Your task to perform on an android device: delete a single message in the gmail app Image 0: 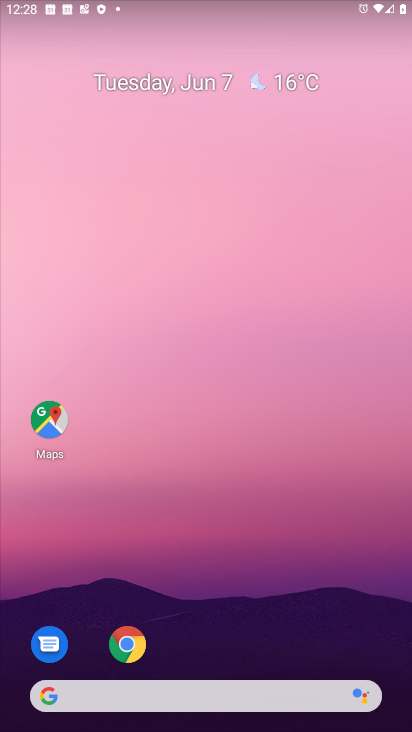
Step 0: drag from (33, 562) to (272, 86)
Your task to perform on an android device: delete a single message in the gmail app Image 1: 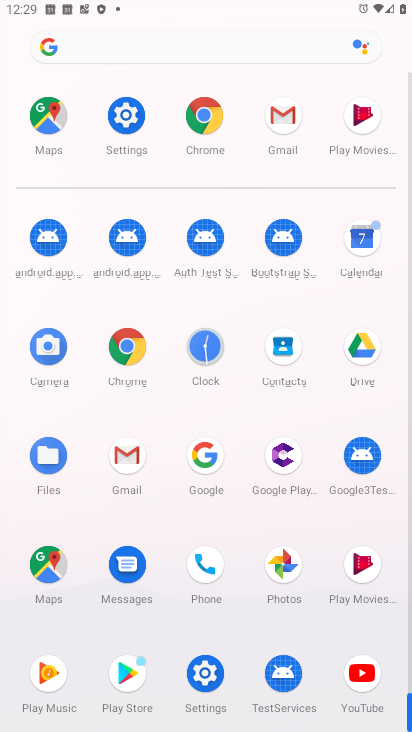
Step 1: click (124, 454)
Your task to perform on an android device: delete a single message in the gmail app Image 2: 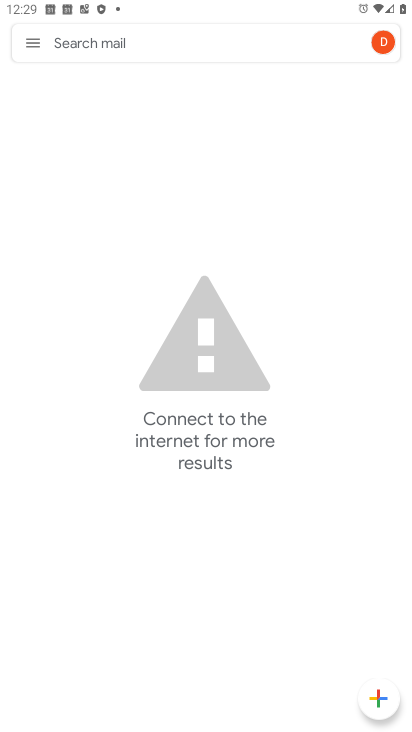
Step 2: click (30, 48)
Your task to perform on an android device: delete a single message in the gmail app Image 3: 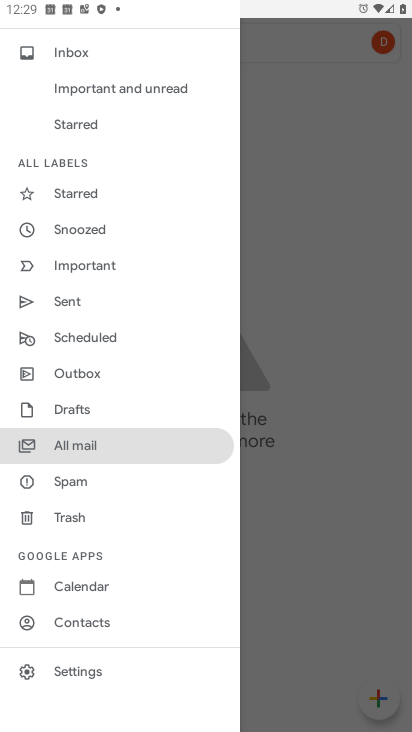
Step 3: task complete